Your task to perform on an android device: open the mobile data screen to see how much data has been used Image 0: 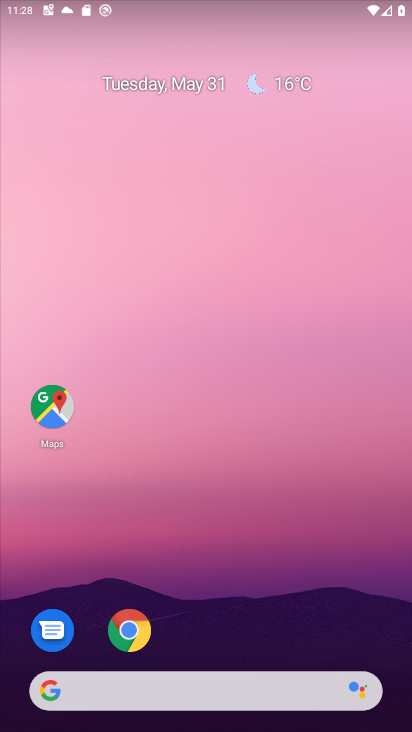
Step 0: drag from (267, 290) to (261, 193)
Your task to perform on an android device: open the mobile data screen to see how much data has been used Image 1: 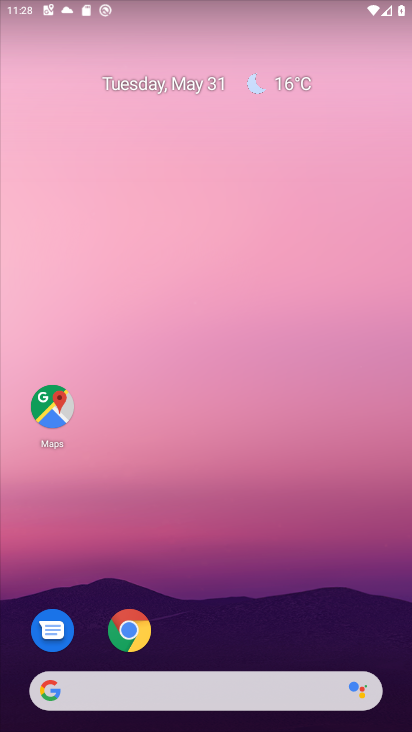
Step 1: drag from (240, 521) to (236, 85)
Your task to perform on an android device: open the mobile data screen to see how much data has been used Image 2: 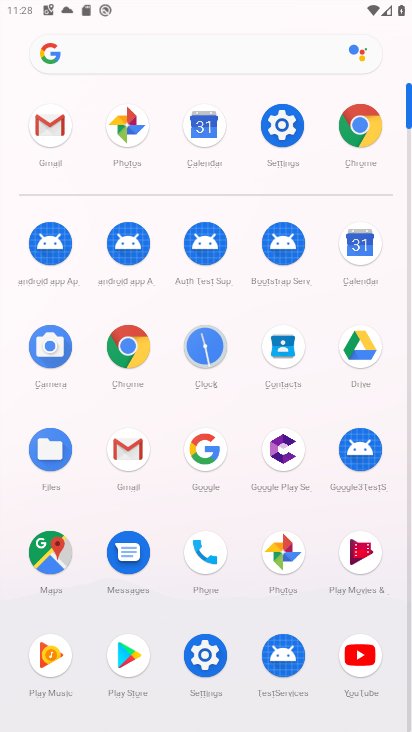
Step 2: click (279, 109)
Your task to perform on an android device: open the mobile data screen to see how much data has been used Image 3: 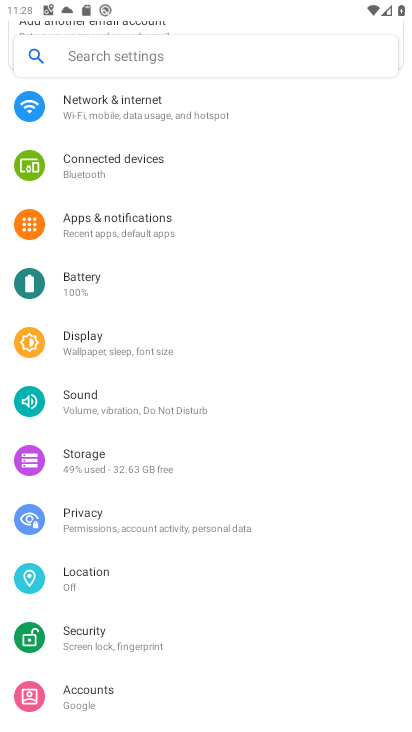
Step 3: click (151, 124)
Your task to perform on an android device: open the mobile data screen to see how much data has been used Image 4: 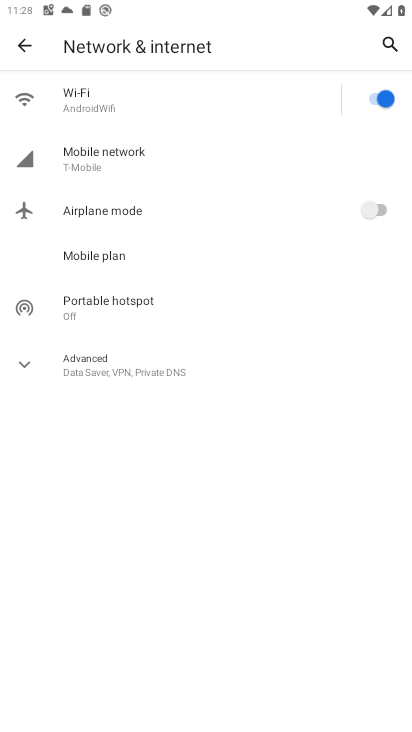
Step 4: click (146, 166)
Your task to perform on an android device: open the mobile data screen to see how much data has been used Image 5: 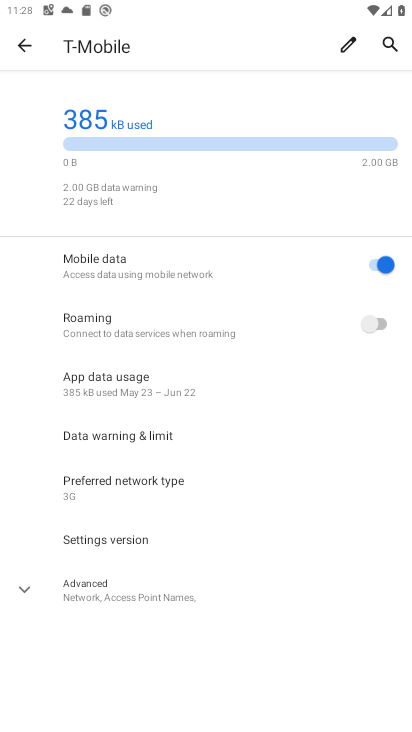
Step 5: task complete